Your task to perform on an android device: Search for sushi restaurants on Maps Image 0: 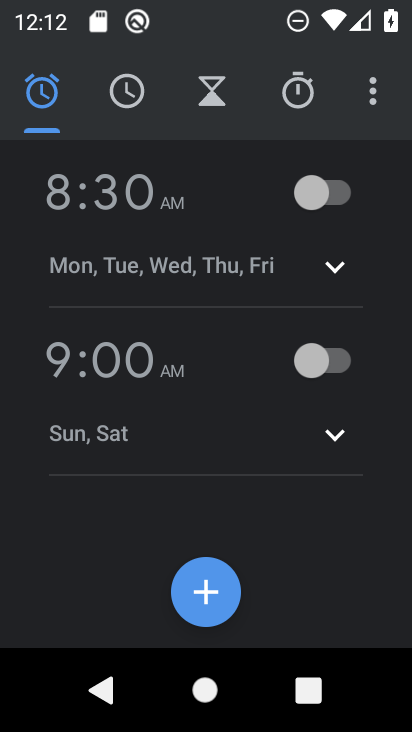
Step 0: drag from (246, 724) to (173, 174)
Your task to perform on an android device: Search for sushi restaurants on Maps Image 1: 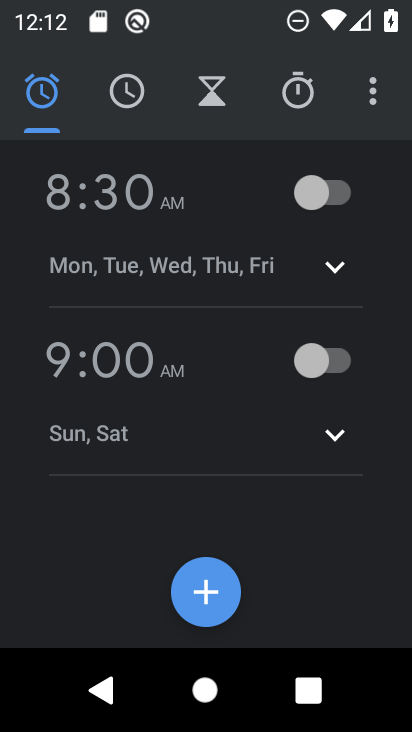
Step 1: press back button
Your task to perform on an android device: Search for sushi restaurants on Maps Image 2: 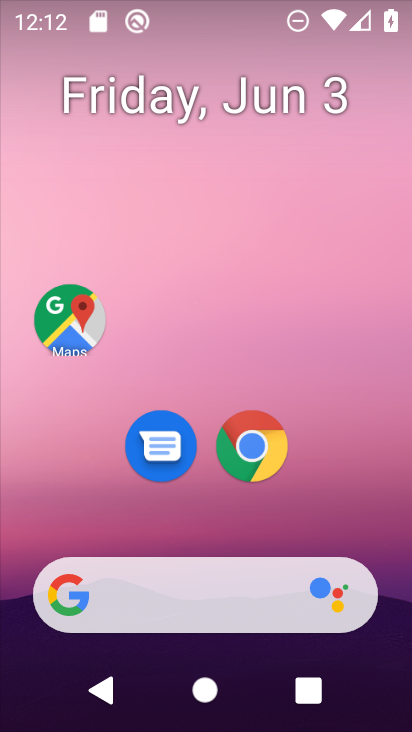
Step 2: drag from (264, 667) to (148, 123)
Your task to perform on an android device: Search for sushi restaurants on Maps Image 3: 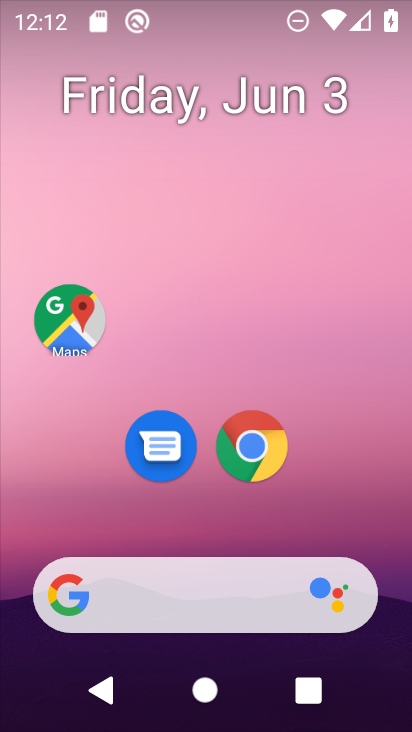
Step 3: drag from (255, 662) to (117, 150)
Your task to perform on an android device: Search for sushi restaurants on Maps Image 4: 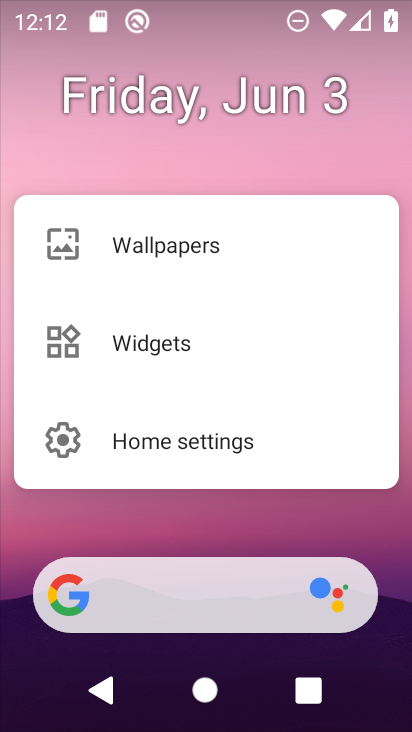
Step 4: drag from (263, 709) to (124, 70)
Your task to perform on an android device: Search for sushi restaurants on Maps Image 5: 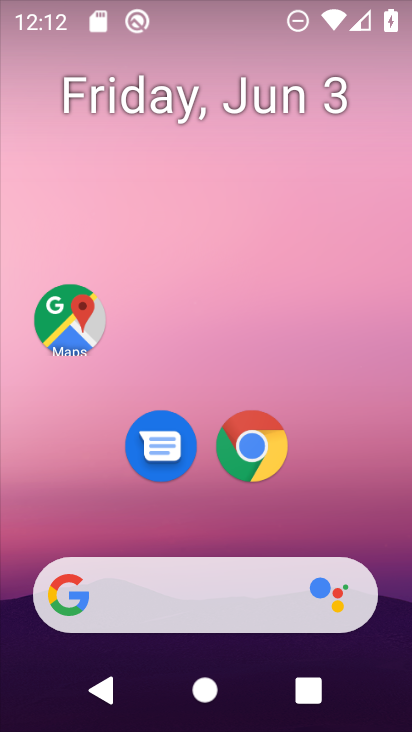
Step 5: drag from (257, 566) to (25, 42)
Your task to perform on an android device: Search for sushi restaurants on Maps Image 6: 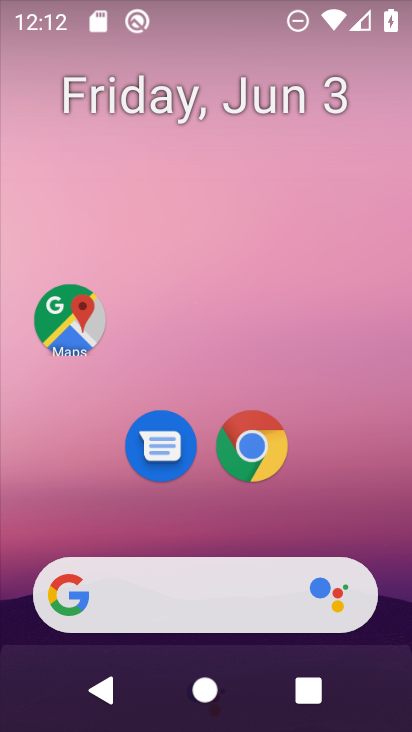
Step 6: click (50, 188)
Your task to perform on an android device: Search for sushi restaurants on Maps Image 7: 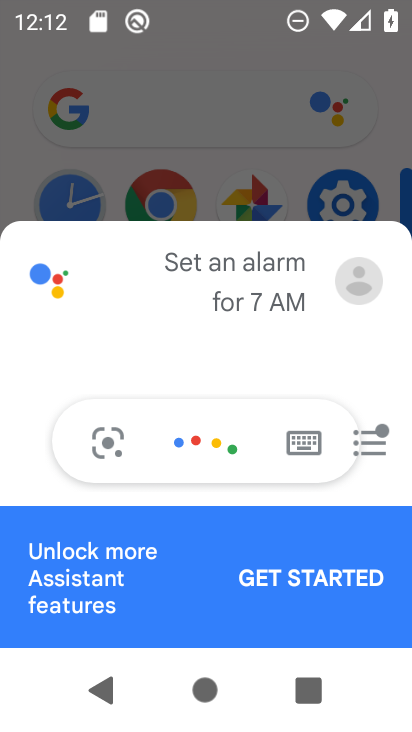
Step 7: press back button
Your task to perform on an android device: Search for sushi restaurants on Maps Image 8: 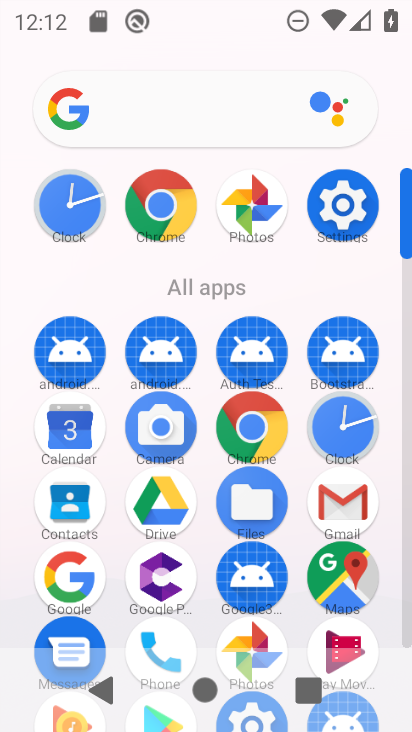
Step 8: press home button
Your task to perform on an android device: Search for sushi restaurants on Maps Image 9: 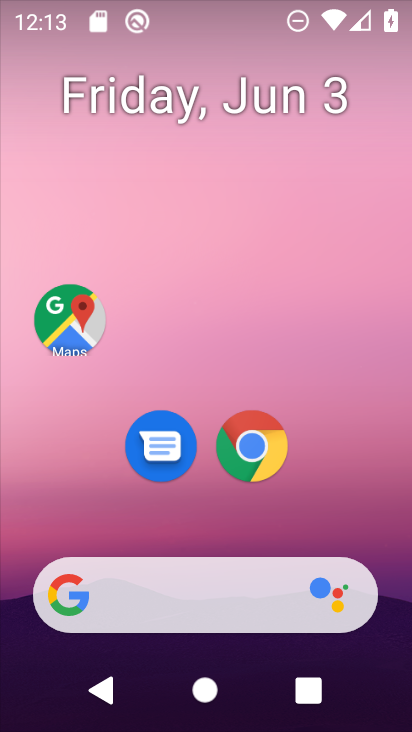
Step 9: drag from (252, 671) to (124, 118)
Your task to perform on an android device: Search for sushi restaurants on Maps Image 10: 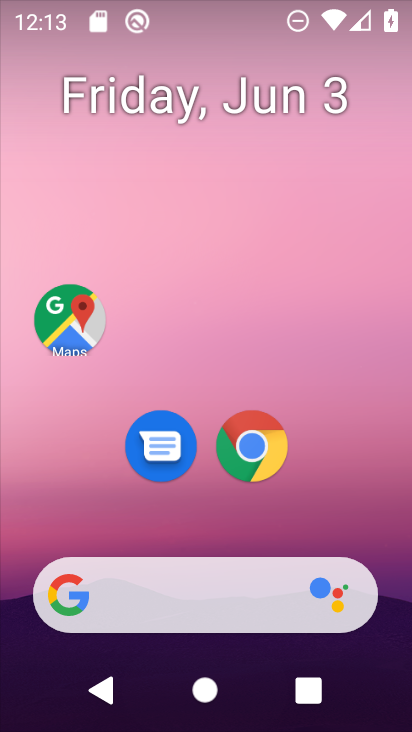
Step 10: drag from (246, 624) to (120, 0)
Your task to perform on an android device: Search for sushi restaurants on Maps Image 11: 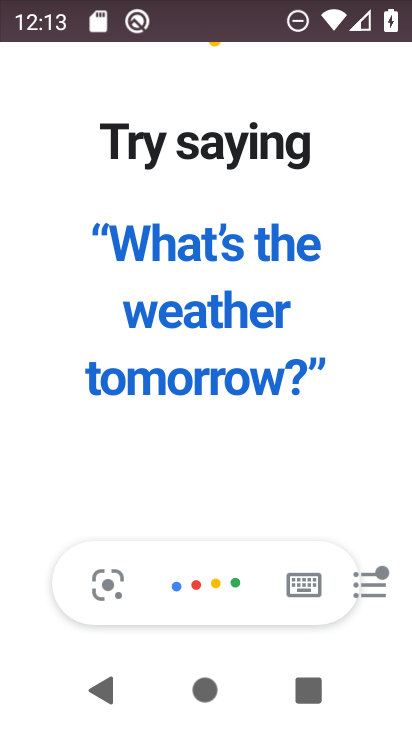
Step 11: press home button
Your task to perform on an android device: Search for sushi restaurants on Maps Image 12: 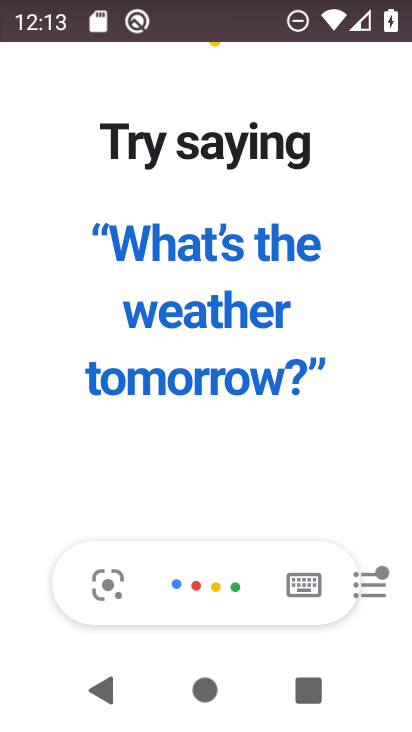
Step 12: press home button
Your task to perform on an android device: Search for sushi restaurants on Maps Image 13: 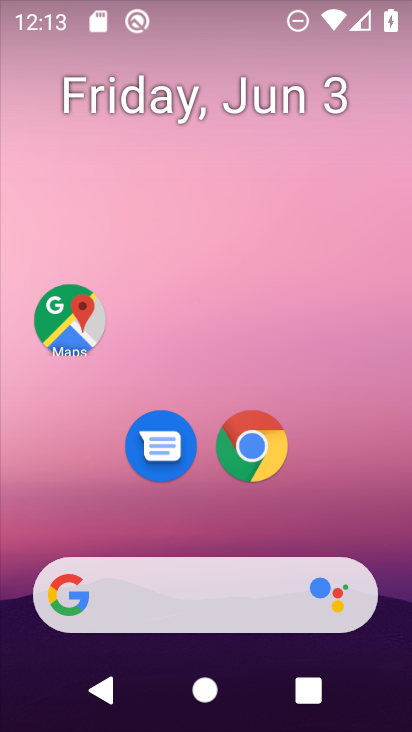
Step 13: click (192, 194)
Your task to perform on an android device: Search for sushi restaurants on Maps Image 14: 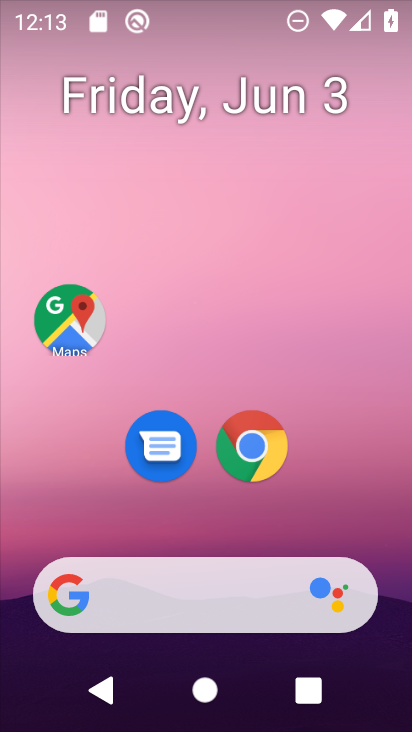
Step 14: drag from (270, 696) to (173, 121)
Your task to perform on an android device: Search for sushi restaurants on Maps Image 15: 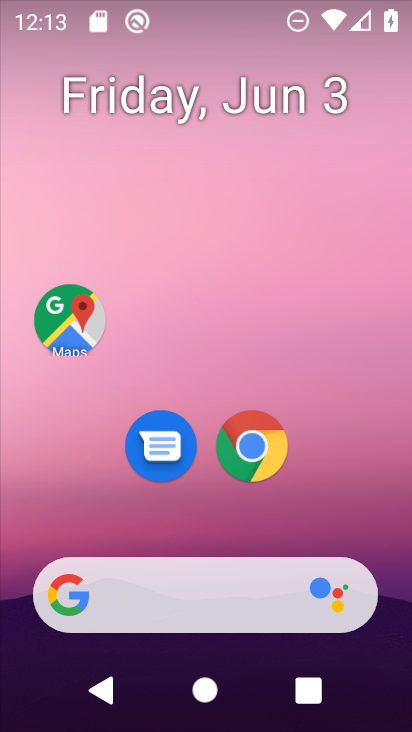
Step 15: drag from (269, 661) to (194, 236)
Your task to perform on an android device: Search for sushi restaurants on Maps Image 16: 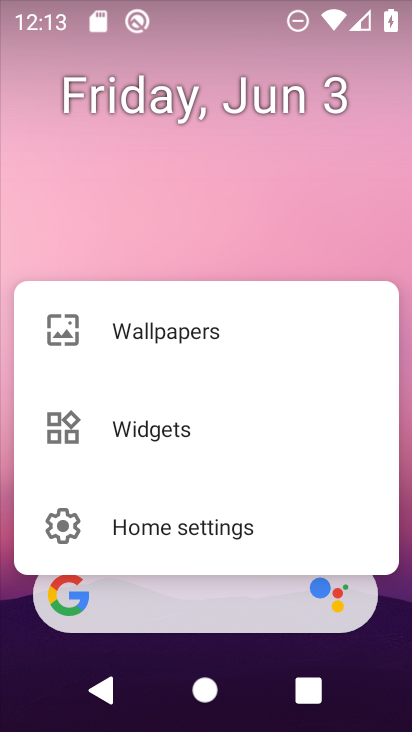
Step 16: click (261, 210)
Your task to perform on an android device: Search for sushi restaurants on Maps Image 17: 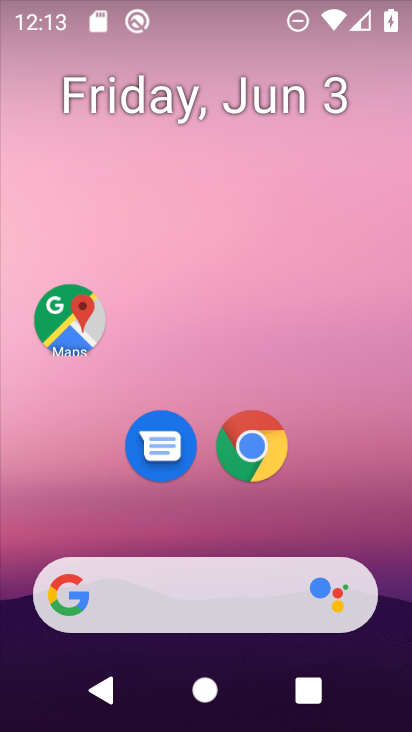
Step 17: drag from (236, 644) to (156, 85)
Your task to perform on an android device: Search for sushi restaurants on Maps Image 18: 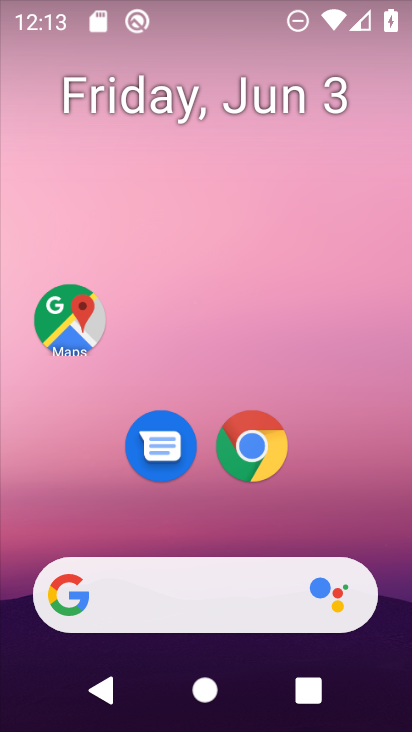
Step 18: drag from (268, 522) to (109, 23)
Your task to perform on an android device: Search for sushi restaurants on Maps Image 19: 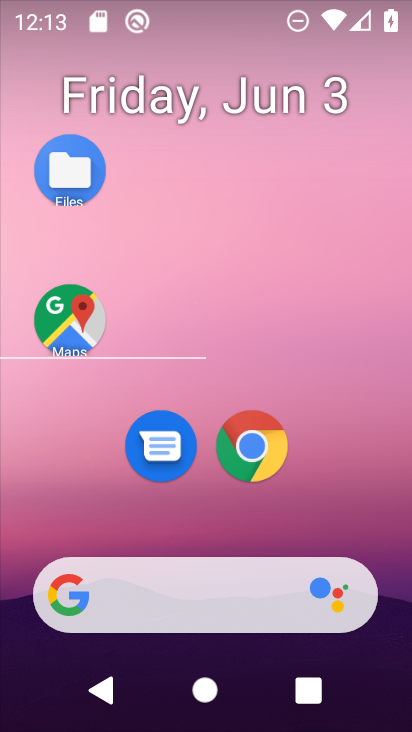
Step 19: drag from (263, 651) to (185, 129)
Your task to perform on an android device: Search for sushi restaurants on Maps Image 20: 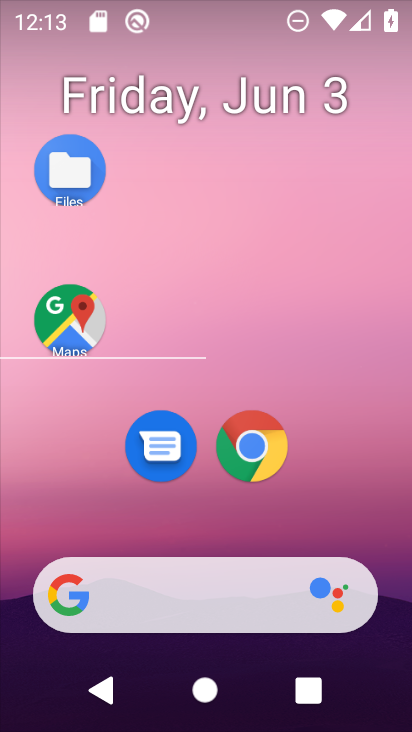
Step 20: drag from (249, 644) to (93, 25)
Your task to perform on an android device: Search for sushi restaurants on Maps Image 21: 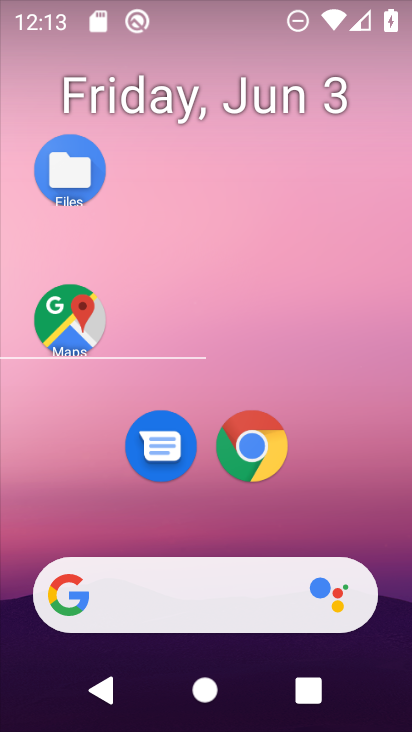
Step 21: drag from (253, 599) to (128, 120)
Your task to perform on an android device: Search for sushi restaurants on Maps Image 22: 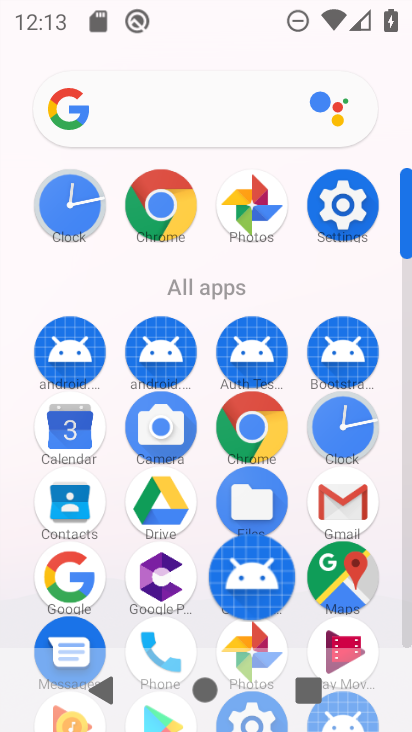
Step 22: drag from (227, 514) to (126, 8)
Your task to perform on an android device: Search for sushi restaurants on Maps Image 23: 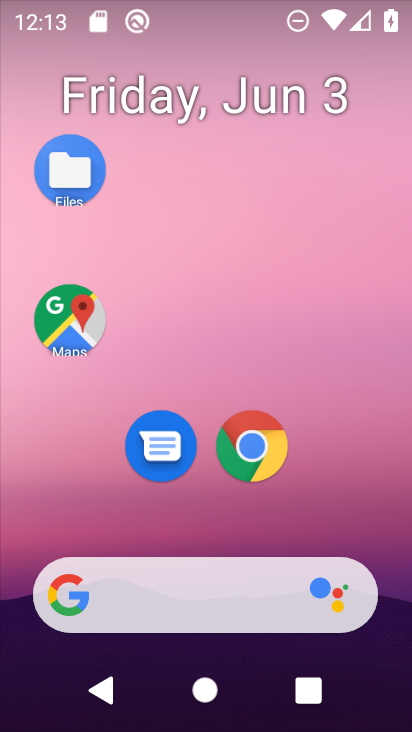
Step 23: drag from (242, 622) to (88, 89)
Your task to perform on an android device: Search for sushi restaurants on Maps Image 24: 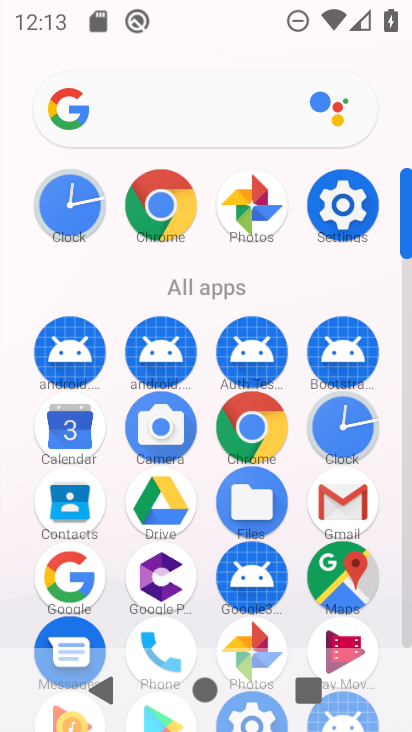
Step 24: click (340, 560)
Your task to perform on an android device: Search for sushi restaurants on Maps Image 25: 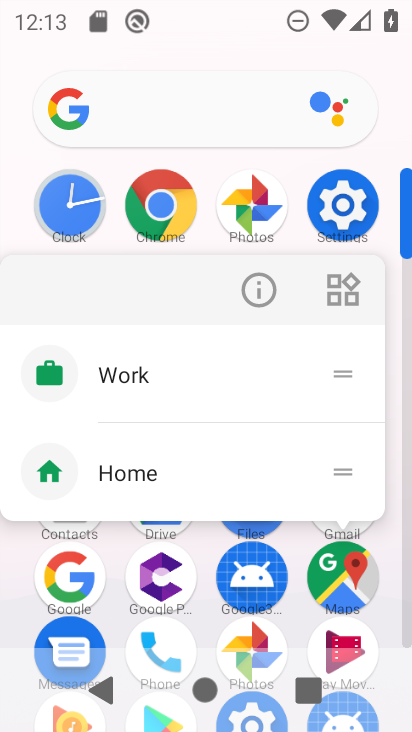
Step 25: click (336, 571)
Your task to perform on an android device: Search for sushi restaurants on Maps Image 26: 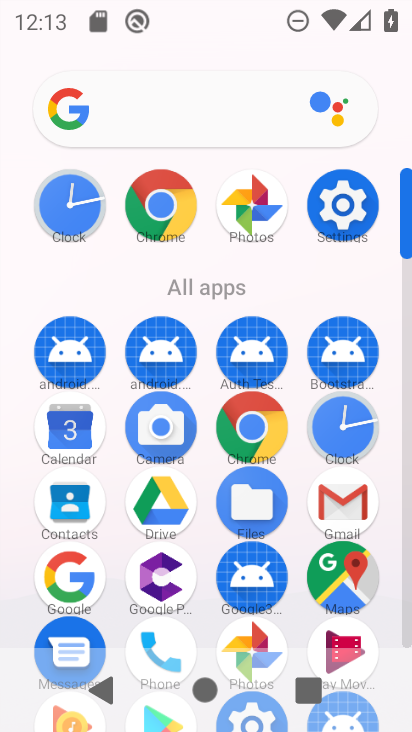
Step 26: click (336, 571)
Your task to perform on an android device: Search for sushi restaurants on Maps Image 27: 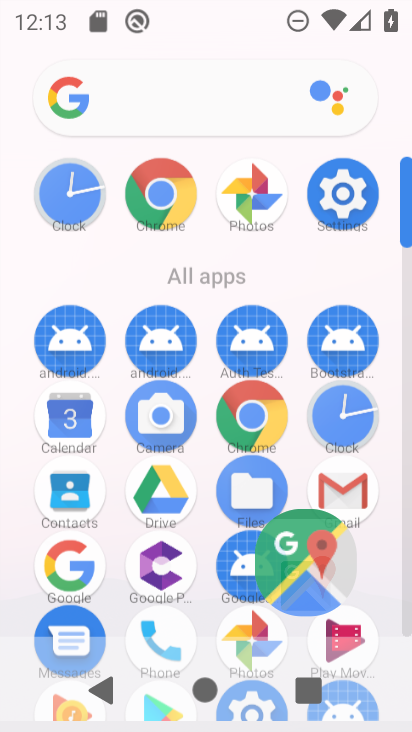
Step 27: click (341, 573)
Your task to perform on an android device: Search for sushi restaurants on Maps Image 28: 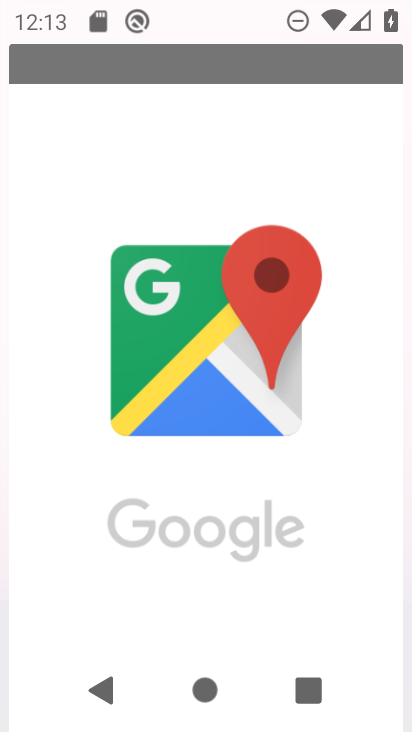
Step 28: click (341, 573)
Your task to perform on an android device: Search for sushi restaurants on Maps Image 29: 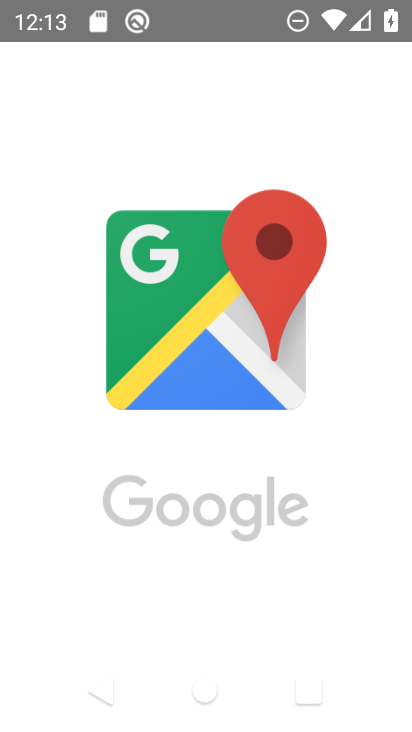
Step 29: click (341, 573)
Your task to perform on an android device: Search for sushi restaurants on Maps Image 30: 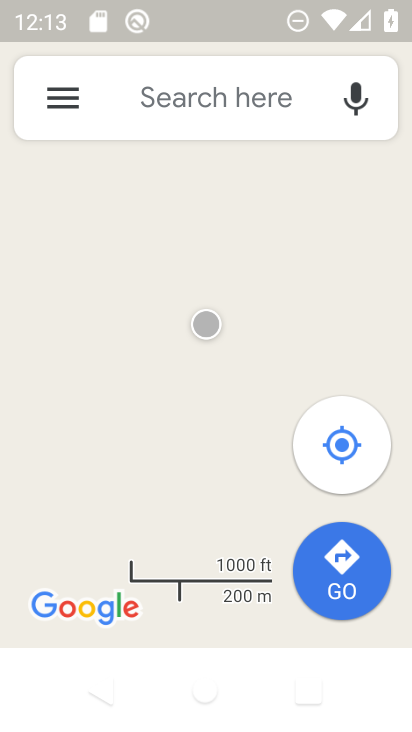
Step 30: click (135, 103)
Your task to perform on an android device: Search for sushi restaurants on Maps Image 31: 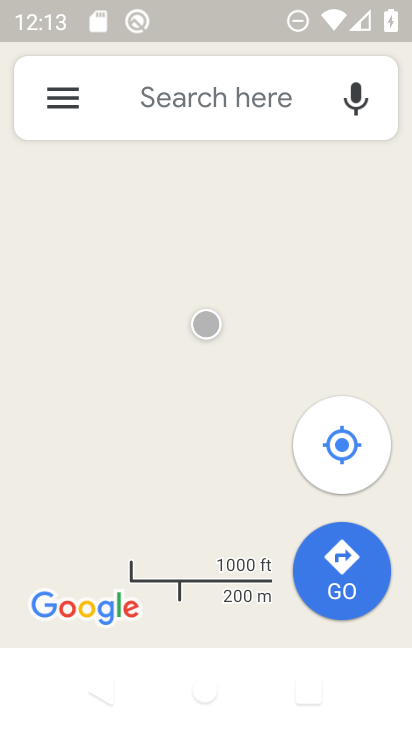
Step 31: click (135, 103)
Your task to perform on an android device: Search for sushi restaurants on Maps Image 32: 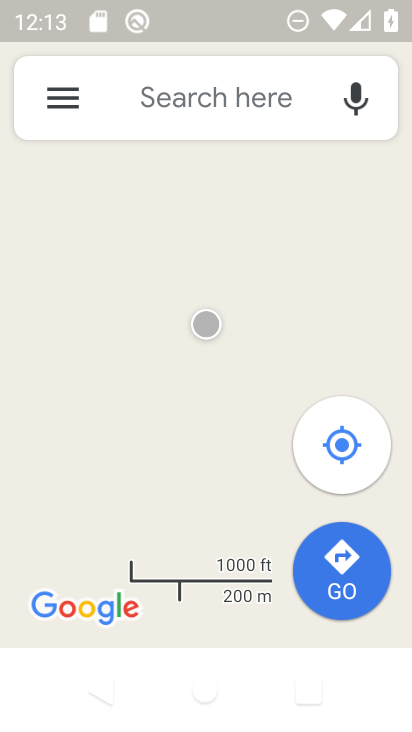
Step 32: click (135, 103)
Your task to perform on an android device: Search for sushi restaurants on Maps Image 33: 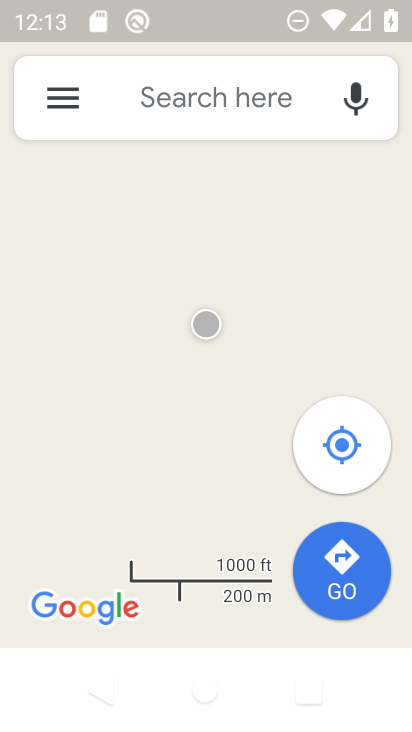
Step 33: click (136, 102)
Your task to perform on an android device: Search for sushi restaurants on Maps Image 34: 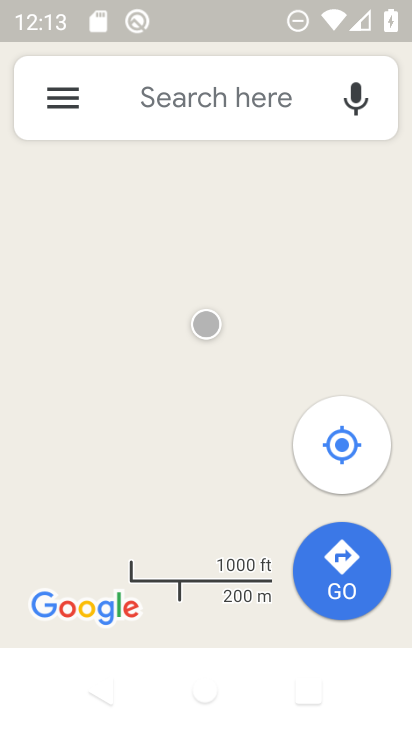
Step 34: click (136, 102)
Your task to perform on an android device: Search for sushi restaurants on Maps Image 35: 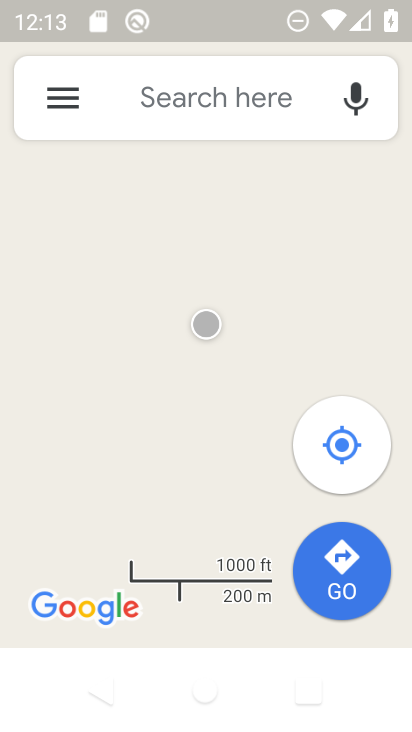
Step 35: click (136, 102)
Your task to perform on an android device: Search for sushi restaurants on Maps Image 36: 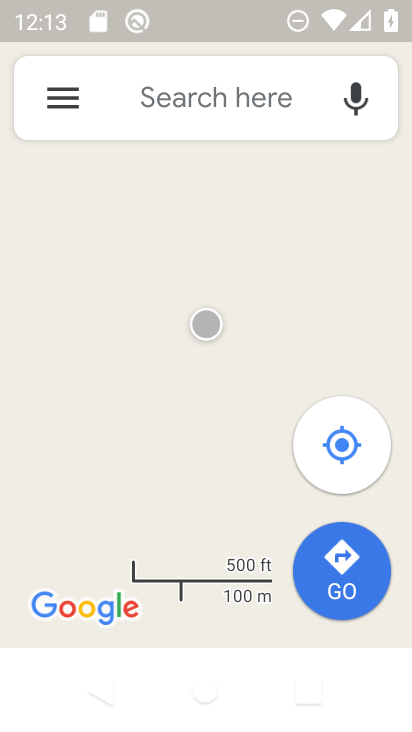
Step 36: click (137, 101)
Your task to perform on an android device: Search for sushi restaurants on Maps Image 37: 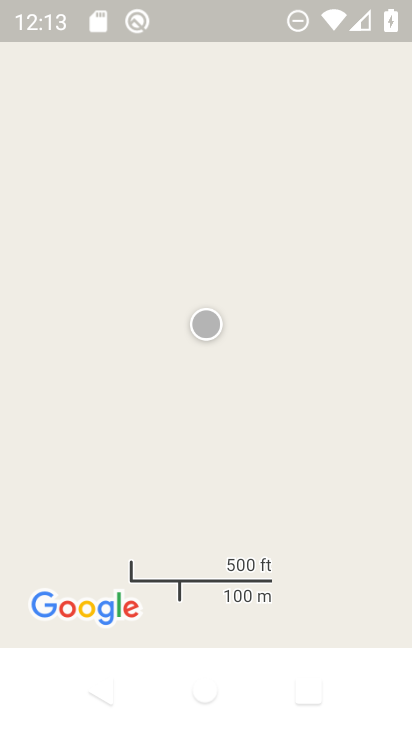
Step 37: click (150, 88)
Your task to perform on an android device: Search for sushi restaurants on Maps Image 38: 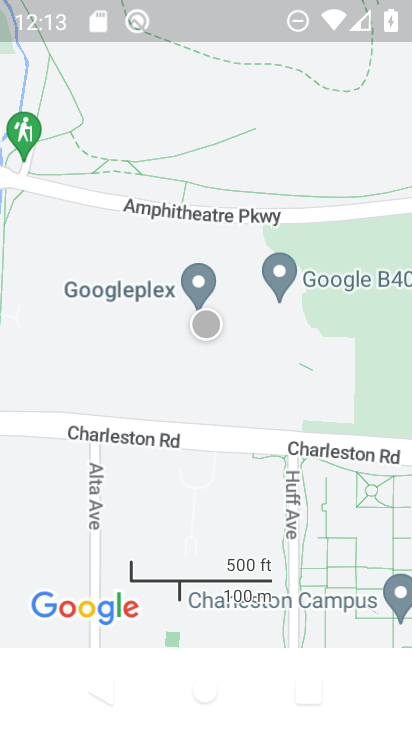
Step 38: click (151, 88)
Your task to perform on an android device: Search for sushi restaurants on Maps Image 39: 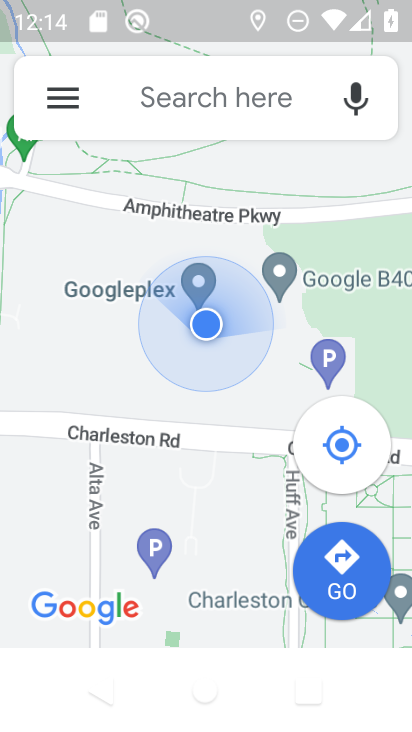
Step 39: type "sushi restaurants"
Your task to perform on an android device: Search for sushi restaurants on Maps Image 40: 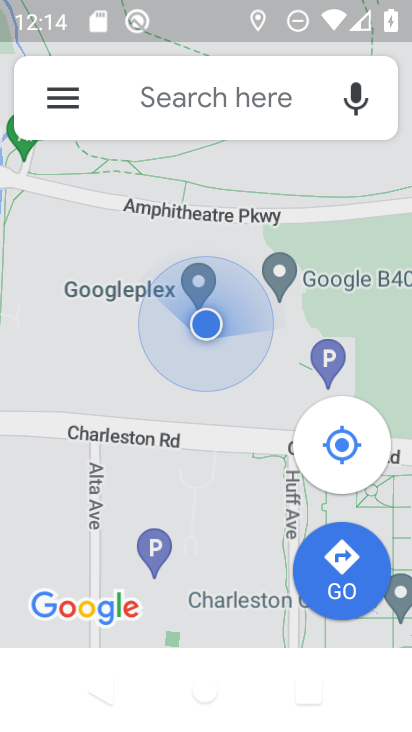
Step 40: click (148, 102)
Your task to perform on an android device: Search for sushi restaurants on Maps Image 41: 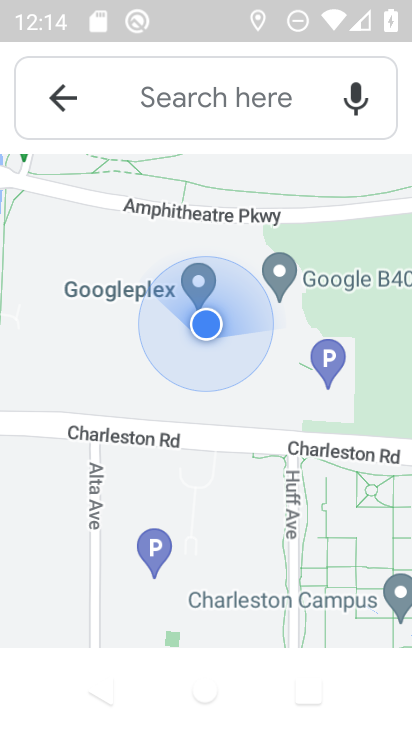
Step 41: click (141, 96)
Your task to perform on an android device: Search for sushi restaurants on Maps Image 42: 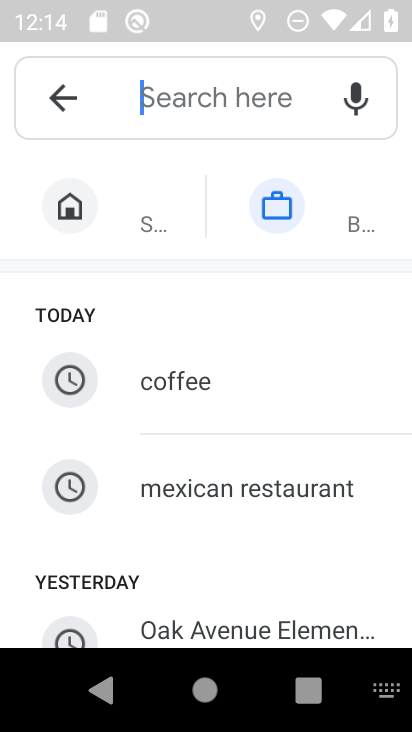
Step 42: type "sushi restaurants"
Your task to perform on an android device: Search for sushi restaurants on Maps Image 43: 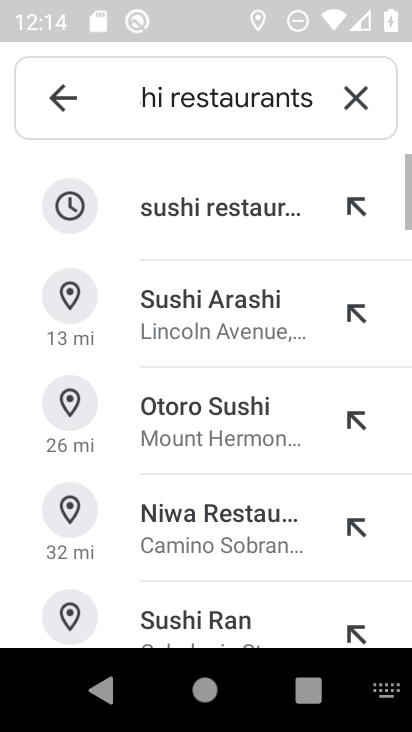
Step 43: click (212, 215)
Your task to perform on an android device: Search for sushi restaurants on Maps Image 44: 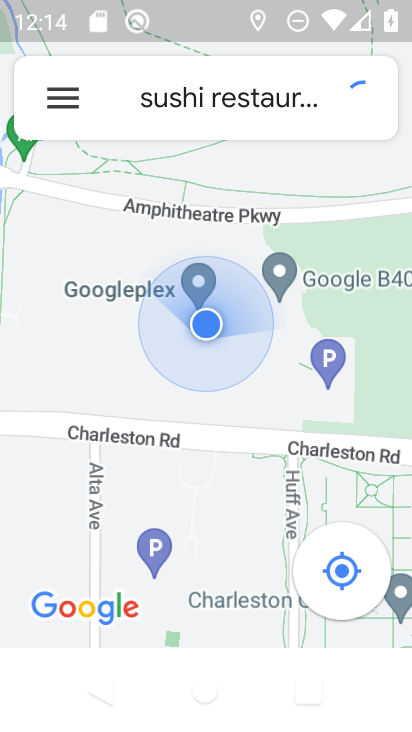
Step 44: task complete